Your task to perform on an android device: Open calendar and show me the fourth week of next month Image 0: 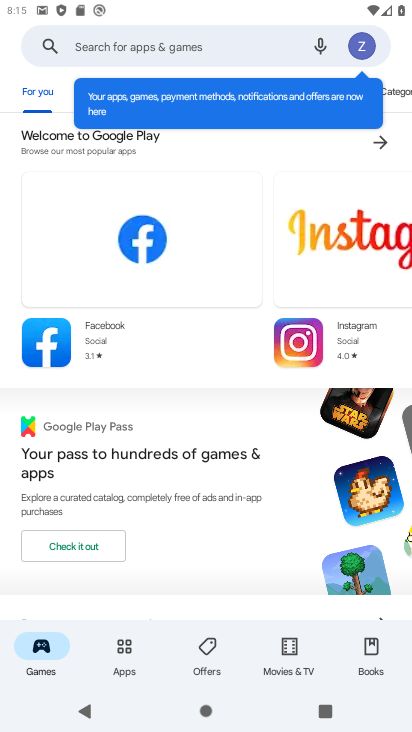
Step 0: press home button
Your task to perform on an android device: Open calendar and show me the fourth week of next month Image 1: 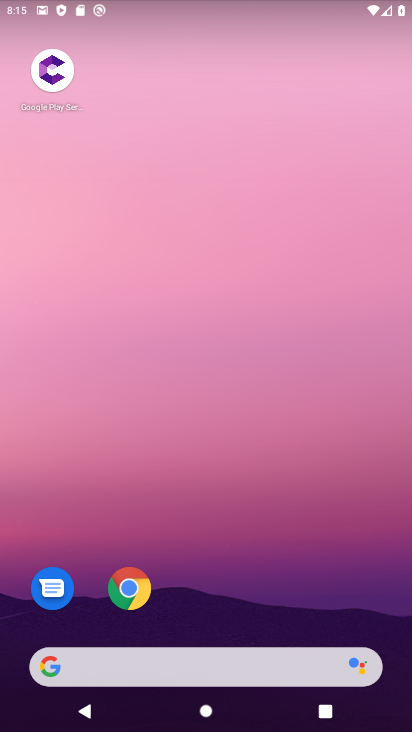
Step 1: drag from (248, 538) to (203, 69)
Your task to perform on an android device: Open calendar and show me the fourth week of next month Image 2: 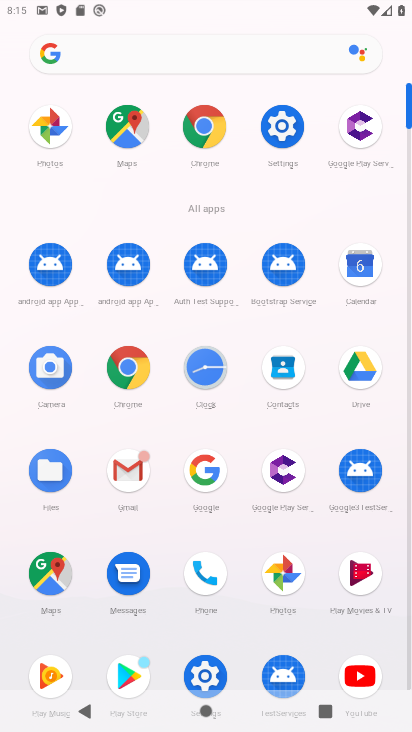
Step 2: click (369, 263)
Your task to perform on an android device: Open calendar and show me the fourth week of next month Image 3: 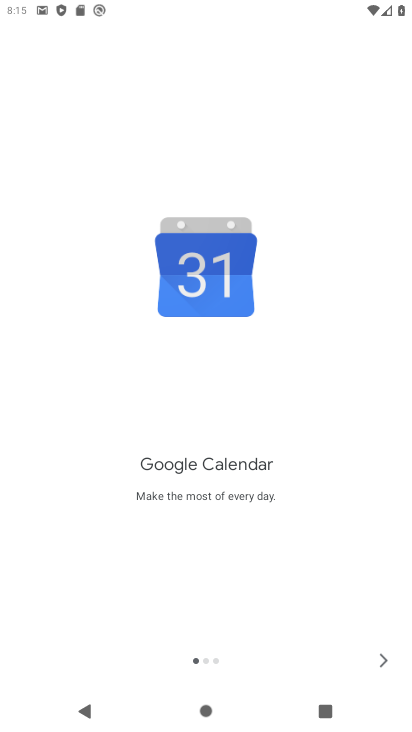
Step 3: click (381, 660)
Your task to perform on an android device: Open calendar and show me the fourth week of next month Image 4: 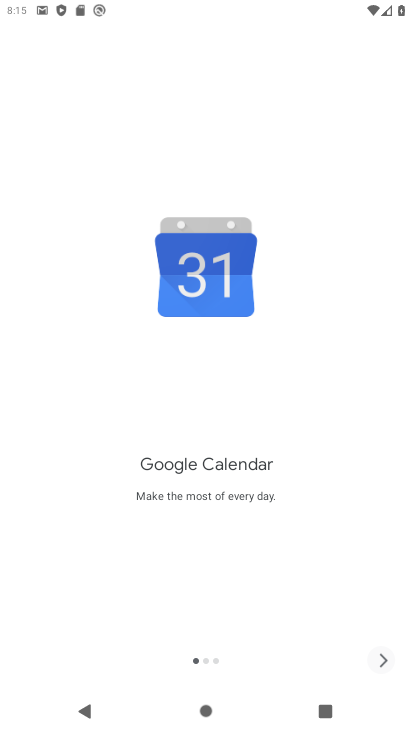
Step 4: click (381, 660)
Your task to perform on an android device: Open calendar and show me the fourth week of next month Image 5: 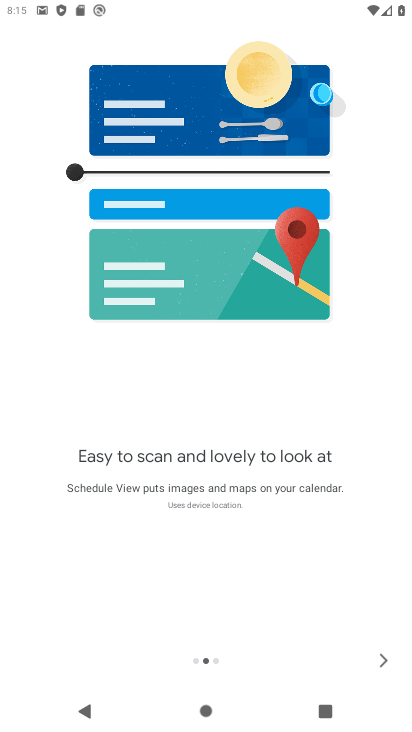
Step 5: click (381, 660)
Your task to perform on an android device: Open calendar and show me the fourth week of next month Image 6: 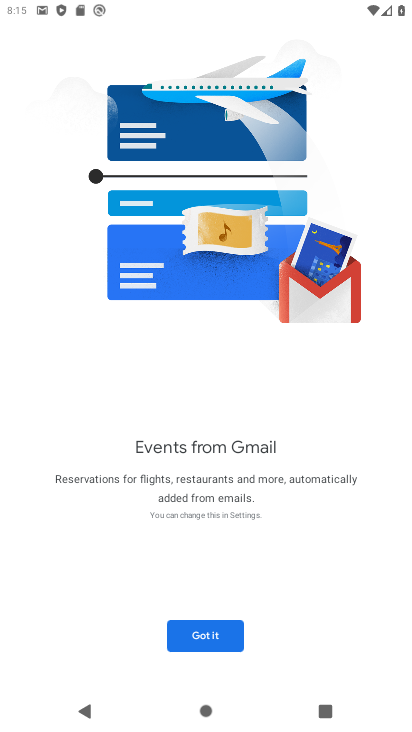
Step 6: click (218, 626)
Your task to perform on an android device: Open calendar and show me the fourth week of next month Image 7: 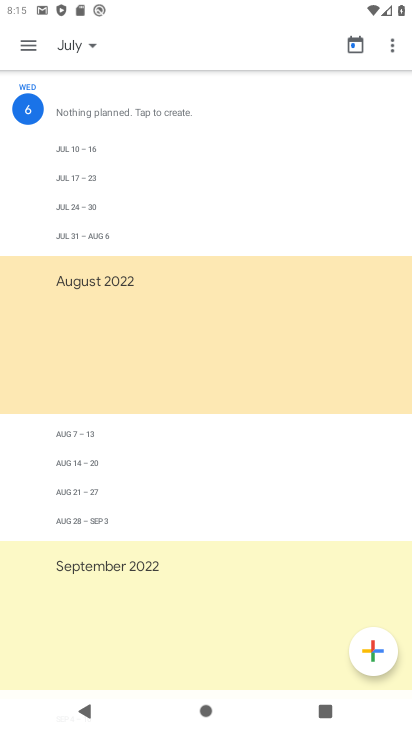
Step 7: click (21, 41)
Your task to perform on an android device: Open calendar and show me the fourth week of next month Image 8: 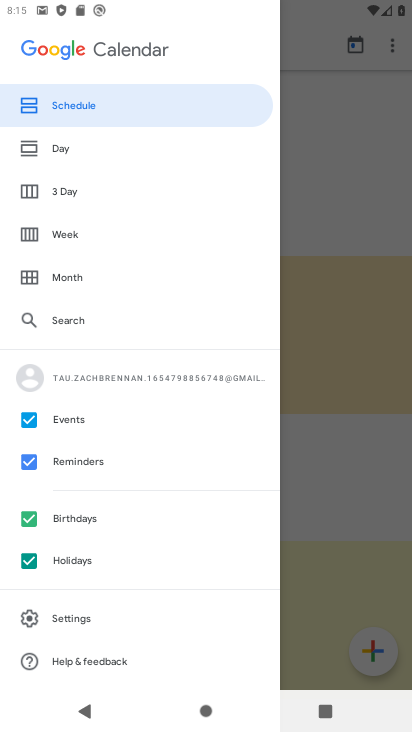
Step 8: click (60, 231)
Your task to perform on an android device: Open calendar and show me the fourth week of next month Image 9: 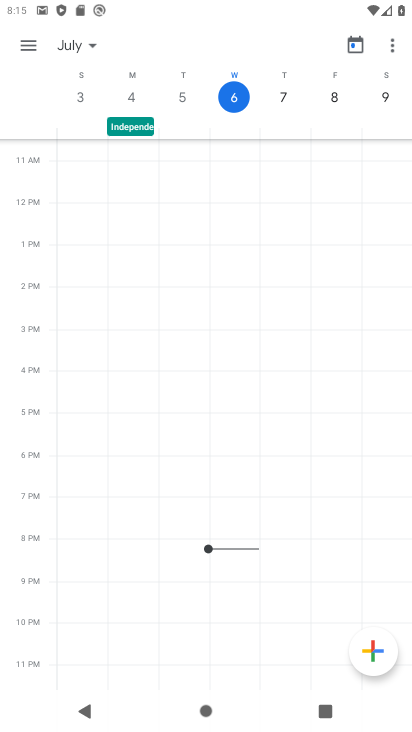
Step 9: click (95, 42)
Your task to perform on an android device: Open calendar and show me the fourth week of next month Image 10: 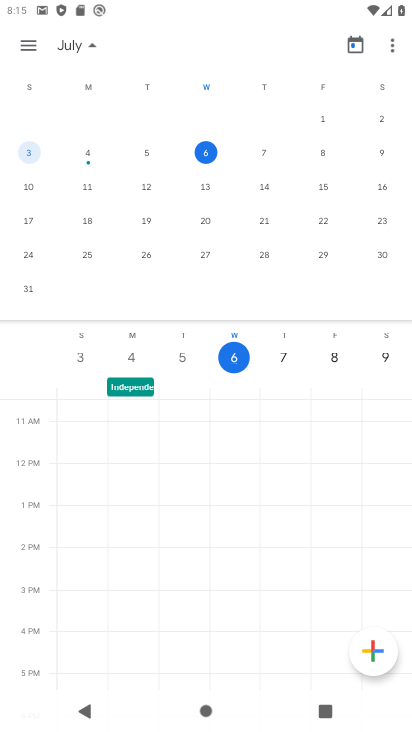
Step 10: drag from (333, 203) to (75, 181)
Your task to perform on an android device: Open calendar and show me the fourth week of next month Image 11: 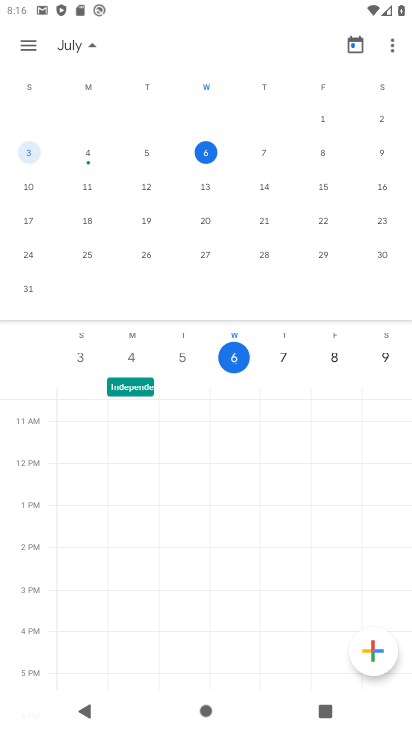
Step 11: click (202, 222)
Your task to perform on an android device: Open calendar and show me the fourth week of next month Image 12: 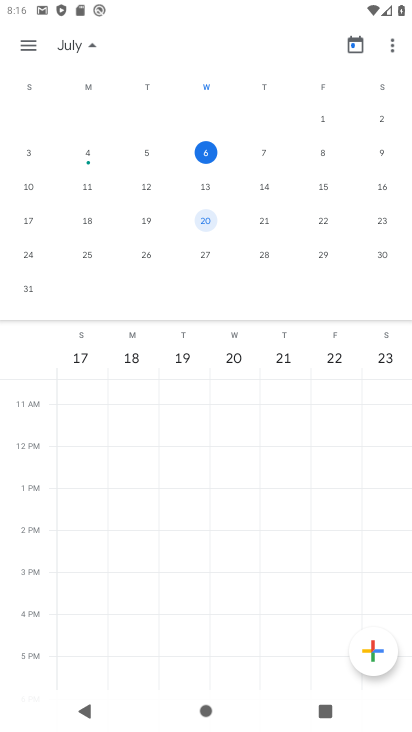
Step 12: click (202, 216)
Your task to perform on an android device: Open calendar and show me the fourth week of next month Image 13: 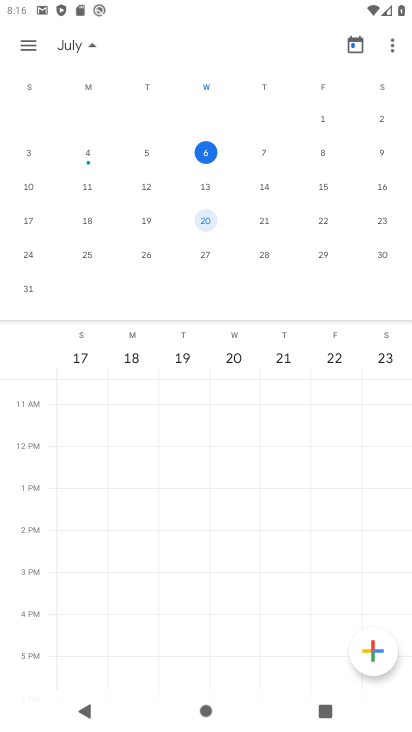
Step 13: task complete